Your task to perform on an android device: Go to Yahoo.com Image 0: 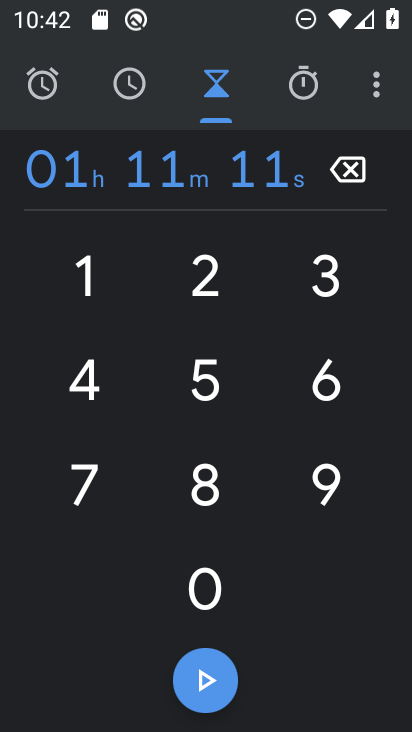
Step 0: press home button
Your task to perform on an android device: Go to Yahoo.com Image 1: 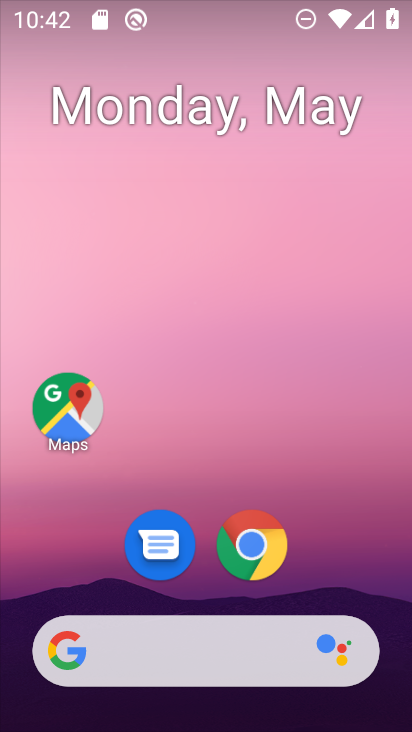
Step 1: click (253, 547)
Your task to perform on an android device: Go to Yahoo.com Image 2: 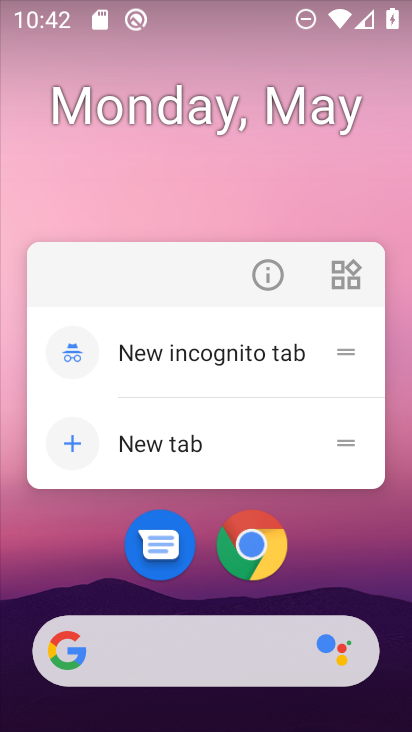
Step 2: click (259, 561)
Your task to perform on an android device: Go to Yahoo.com Image 3: 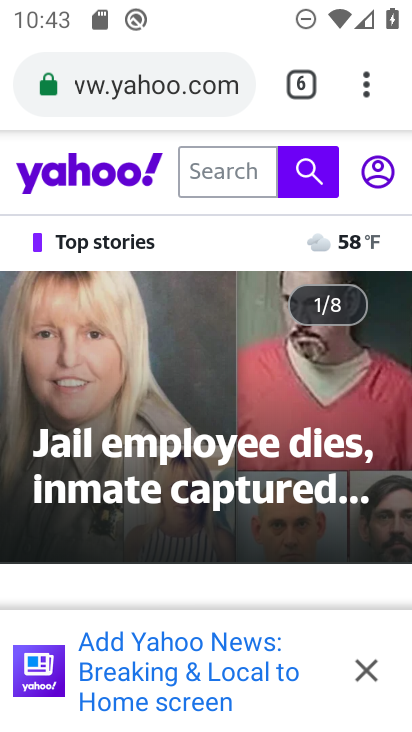
Step 3: task complete